Your task to perform on an android device: Open Chrome and go to settings Image 0: 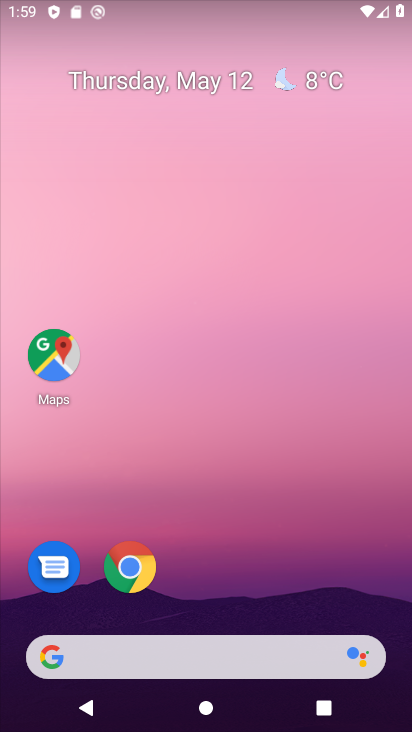
Step 0: click (141, 577)
Your task to perform on an android device: Open Chrome and go to settings Image 1: 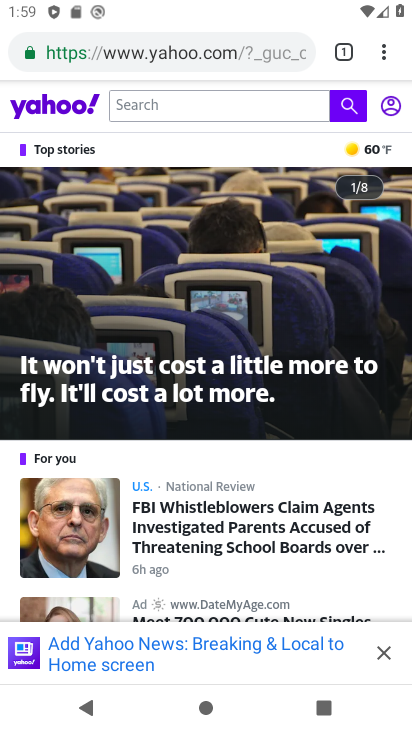
Step 1: task complete